Your task to perform on an android device: open app "YouTube Kids" (install if not already installed), go to login, and select forgot password Image 0: 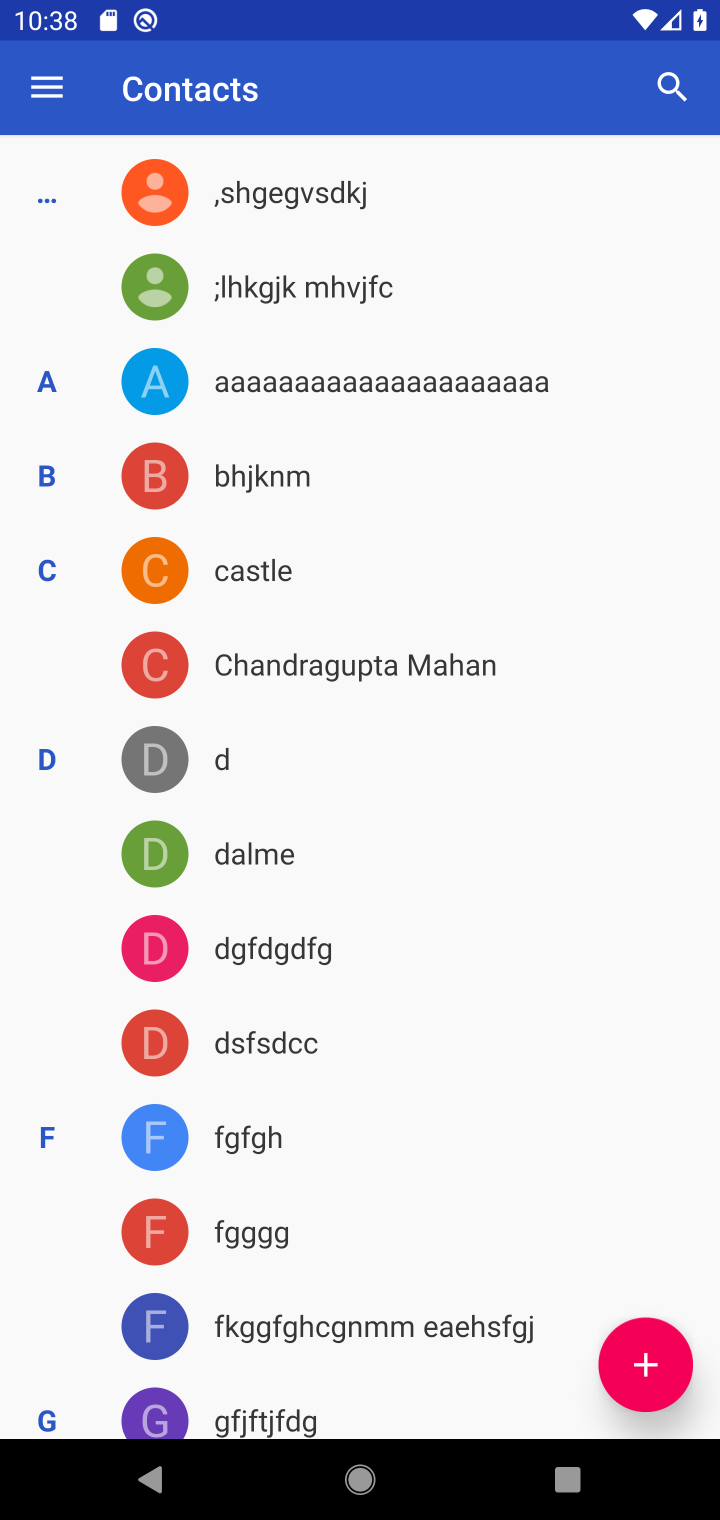
Step 0: drag from (194, 1291) to (195, 683)
Your task to perform on an android device: open app "YouTube Kids" (install if not already installed), go to login, and select forgot password Image 1: 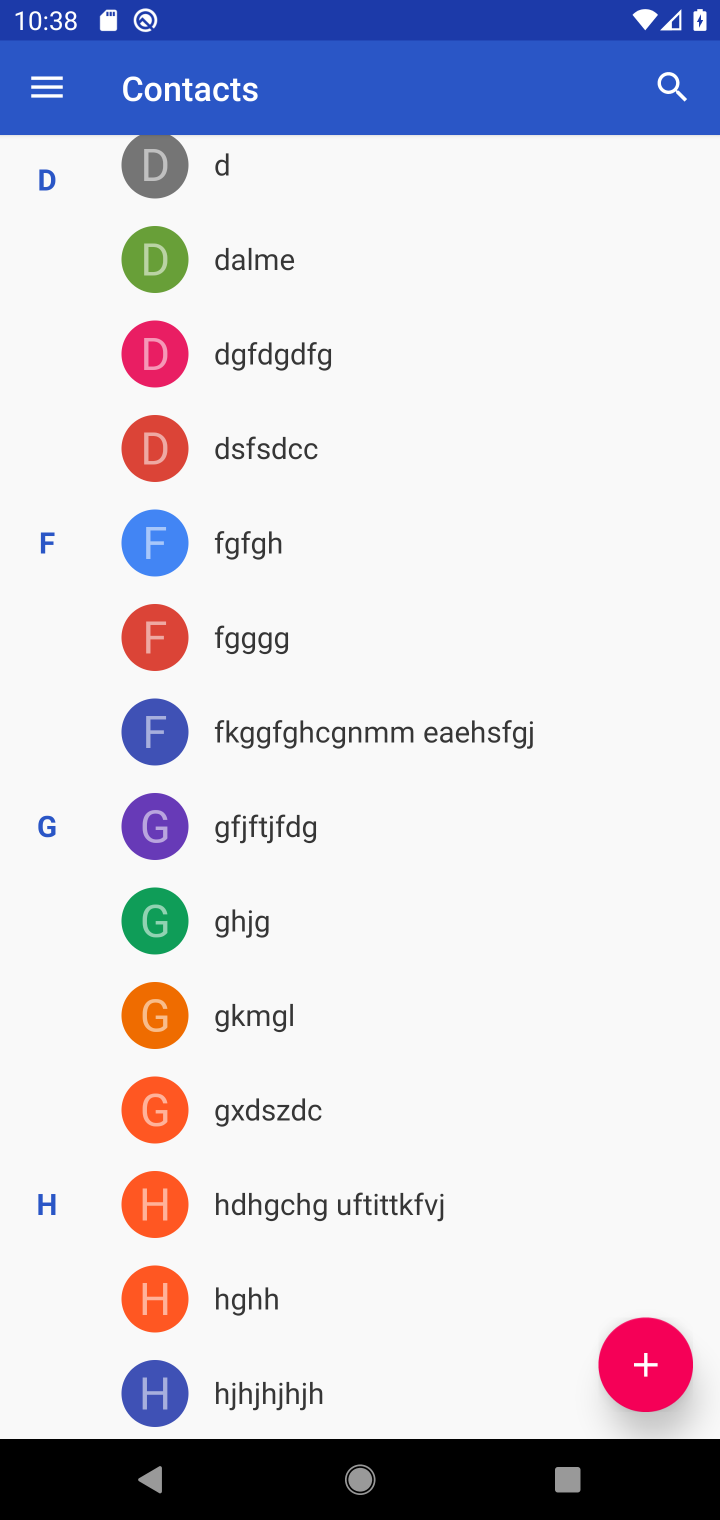
Step 1: press home button
Your task to perform on an android device: open app "YouTube Kids" (install if not already installed), go to login, and select forgot password Image 2: 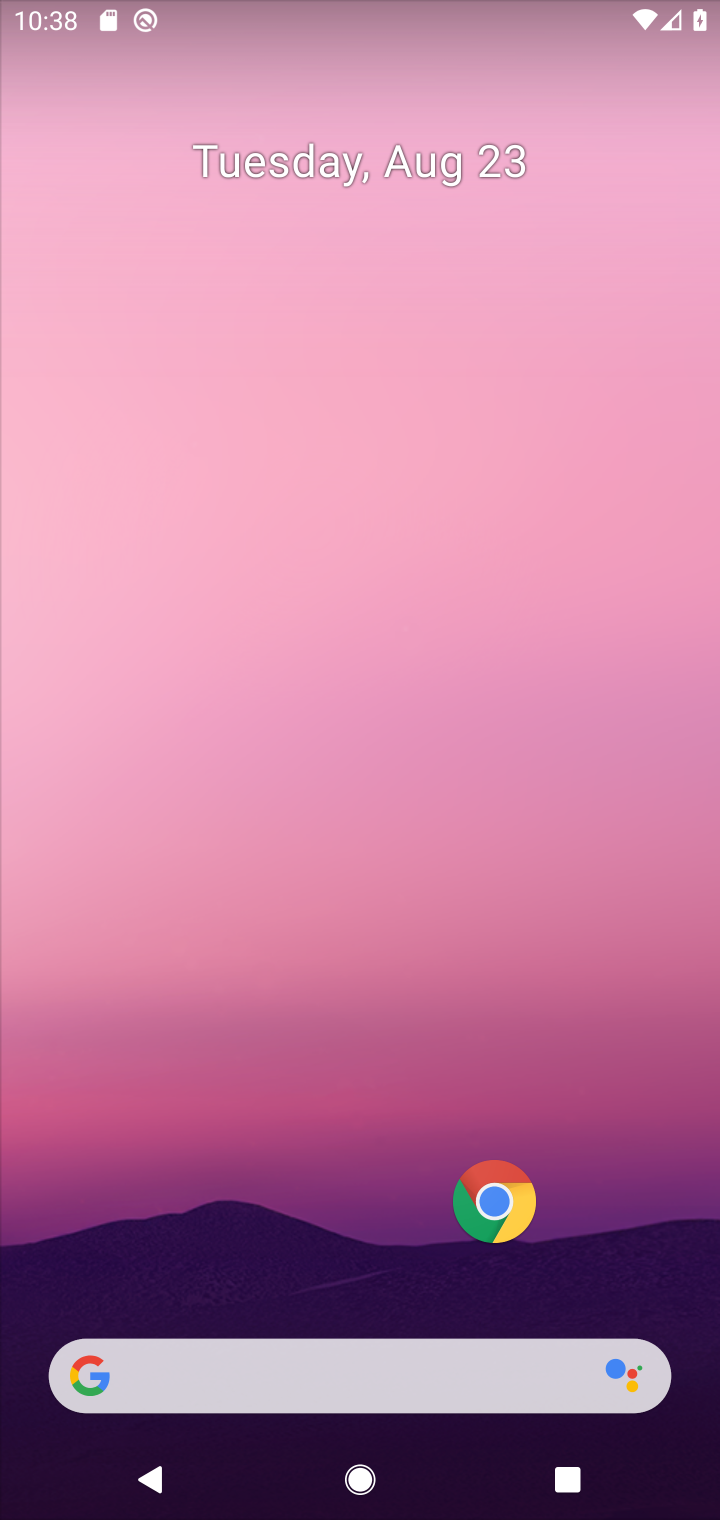
Step 2: drag from (297, 1138) to (282, 537)
Your task to perform on an android device: open app "YouTube Kids" (install if not already installed), go to login, and select forgot password Image 3: 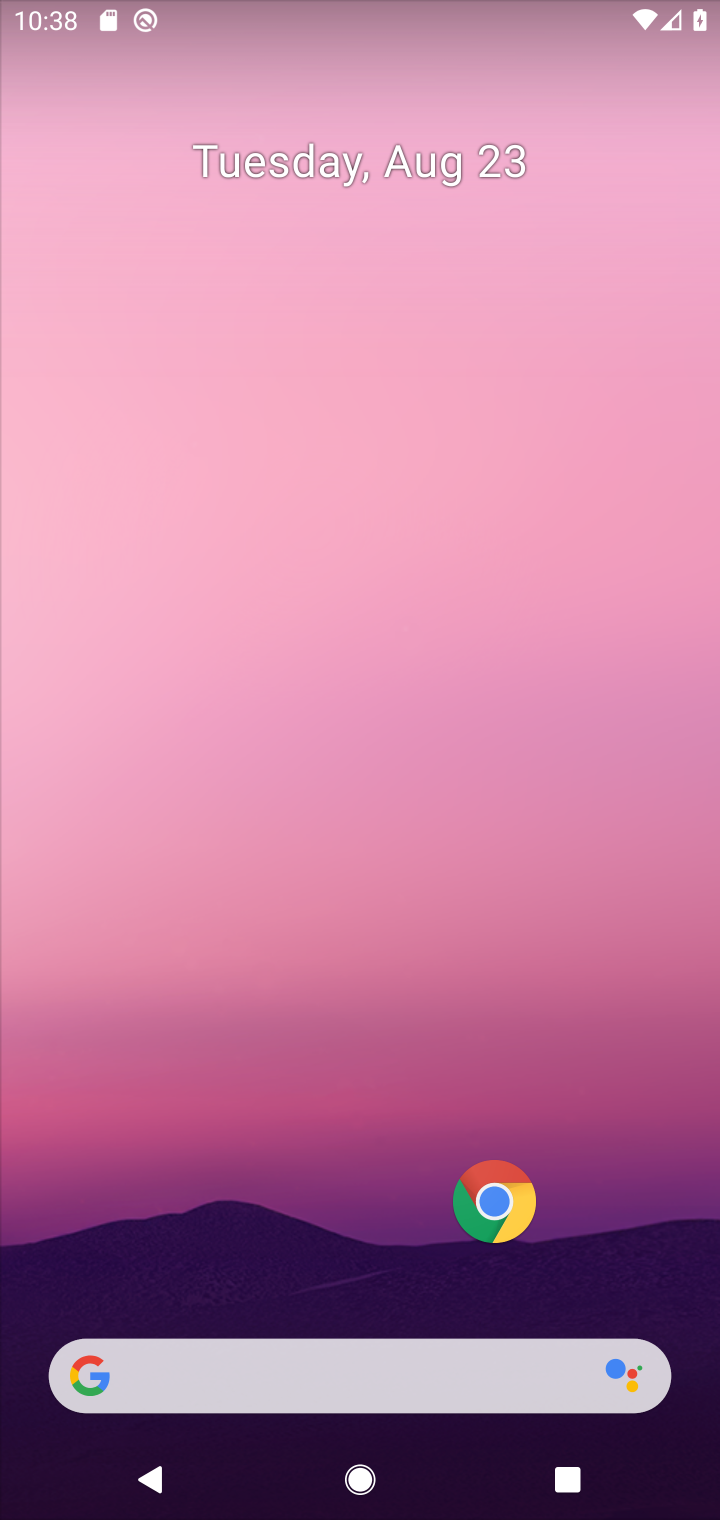
Step 3: drag from (320, 1261) to (386, 240)
Your task to perform on an android device: open app "YouTube Kids" (install if not already installed), go to login, and select forgot password Image 4: 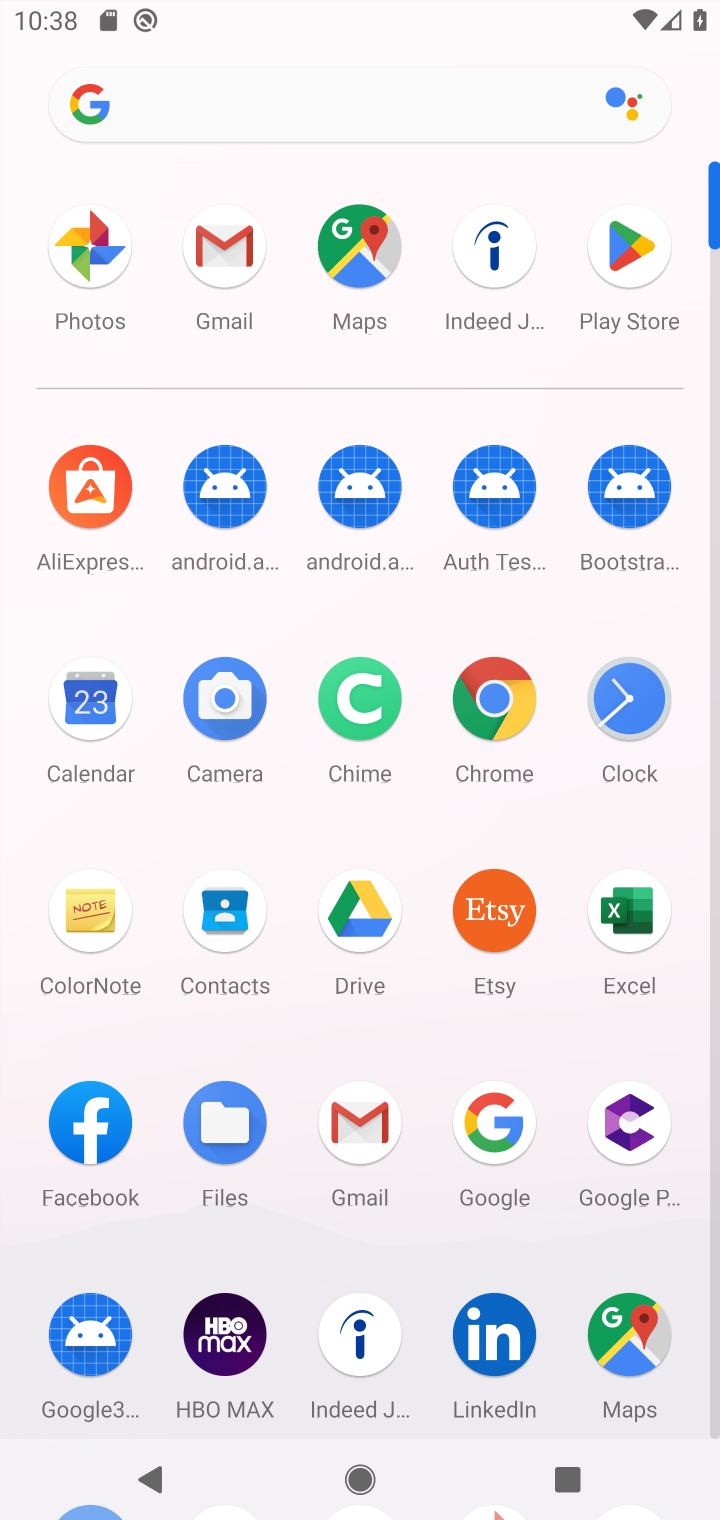
Step 4: click (637, 259)
Your task to perform on an android device: open app "YouTube Kids" (install if not already installed), go to login, and select forgot password Image 5: 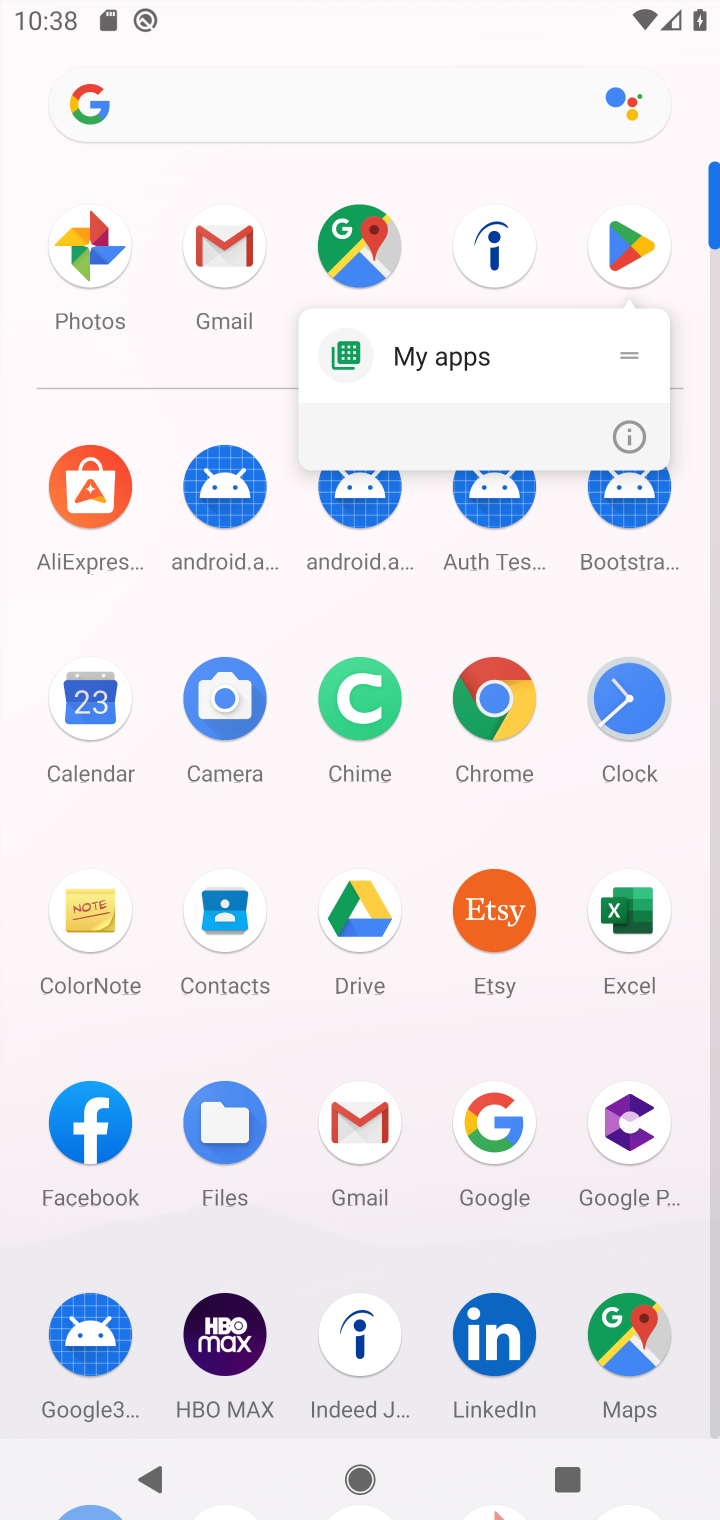
Step 5: click (621, 243)
Your task to perform on an android device: open app "YouTube Kids" (install if not already installed), go to login, and select forgot password Image 6: 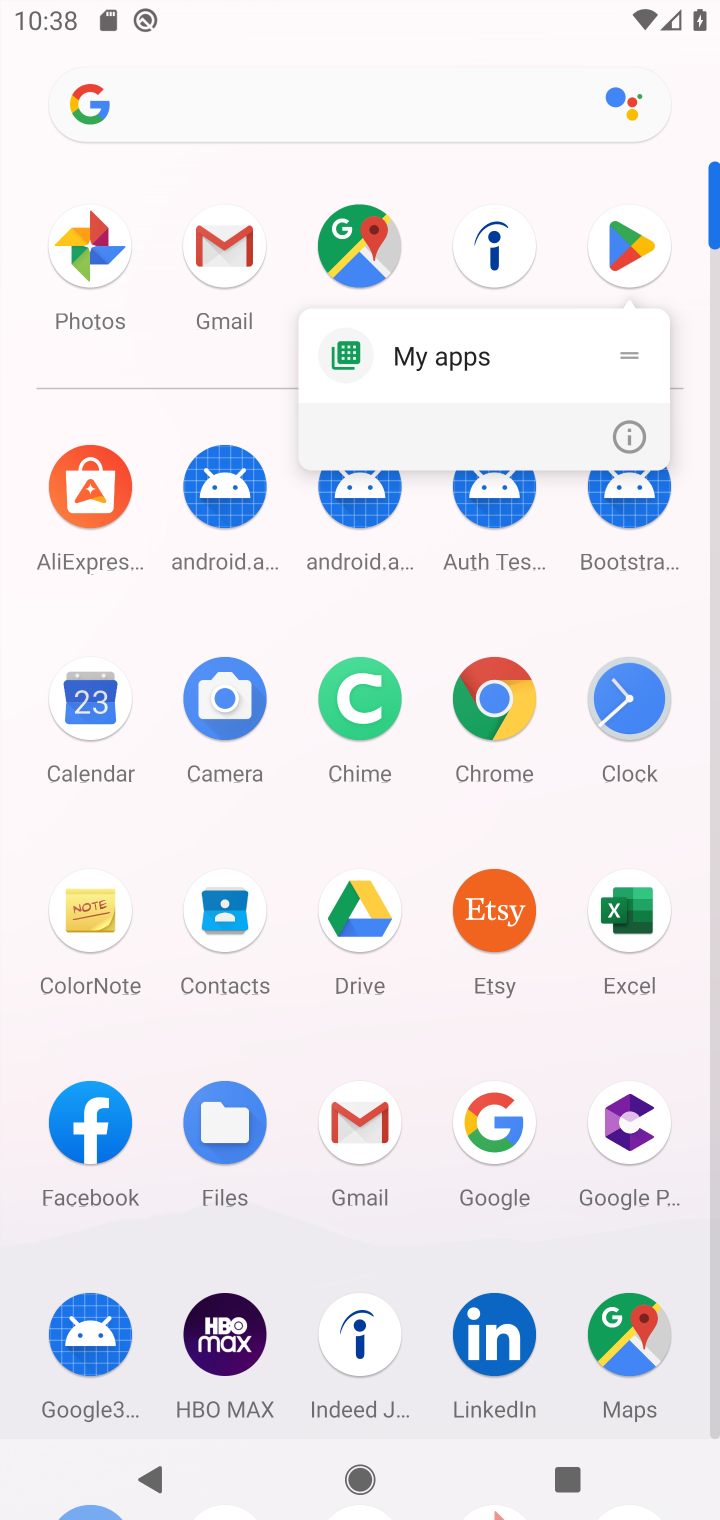
Step 6: click (621, 243)
Your task to perform on an android device: open app "YouTube Kids" (install if not already installed), go to login, and select forgot password Image 7: 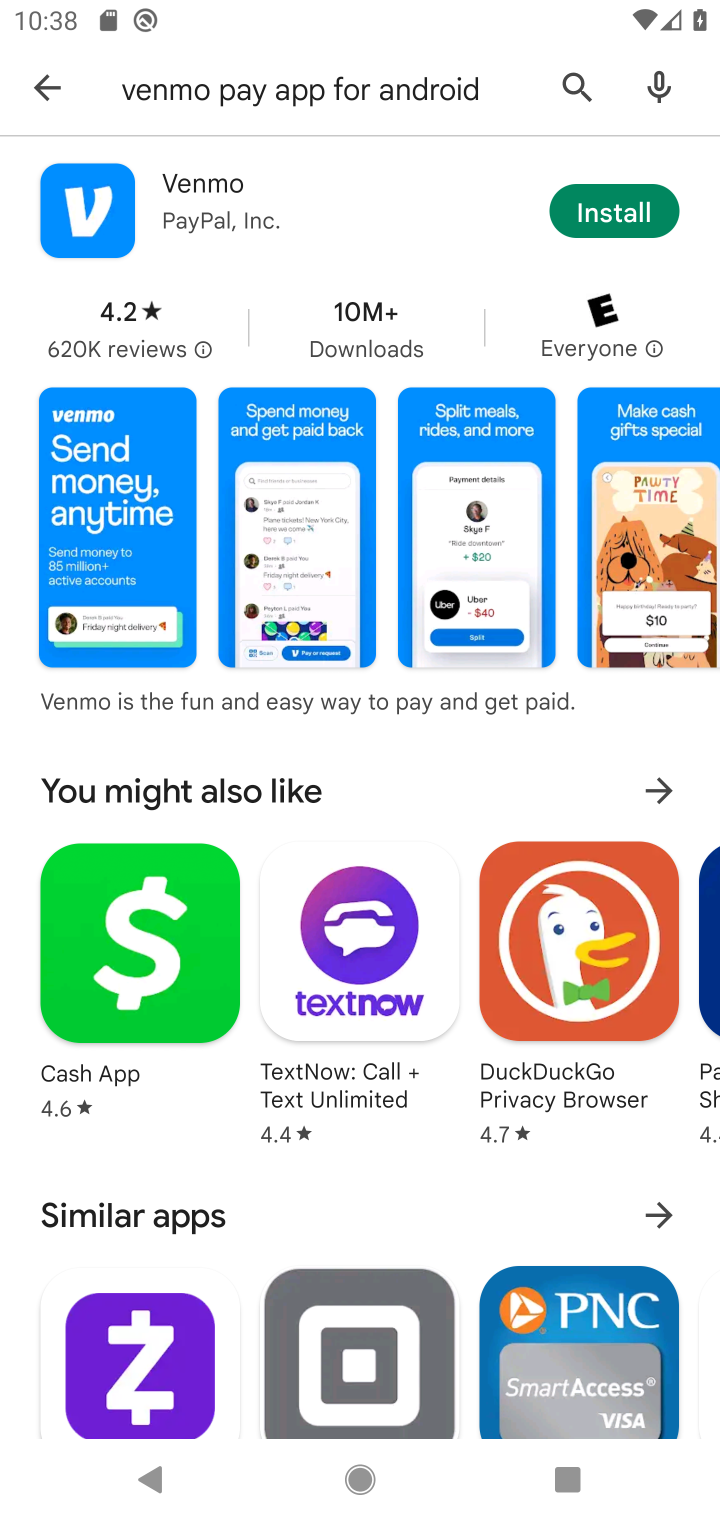
Step 7: click (100, 150)
Your task to perform on an android device: open app "YouTube Kids" (install if not already installed), go to login, and select forgot password Image 8: 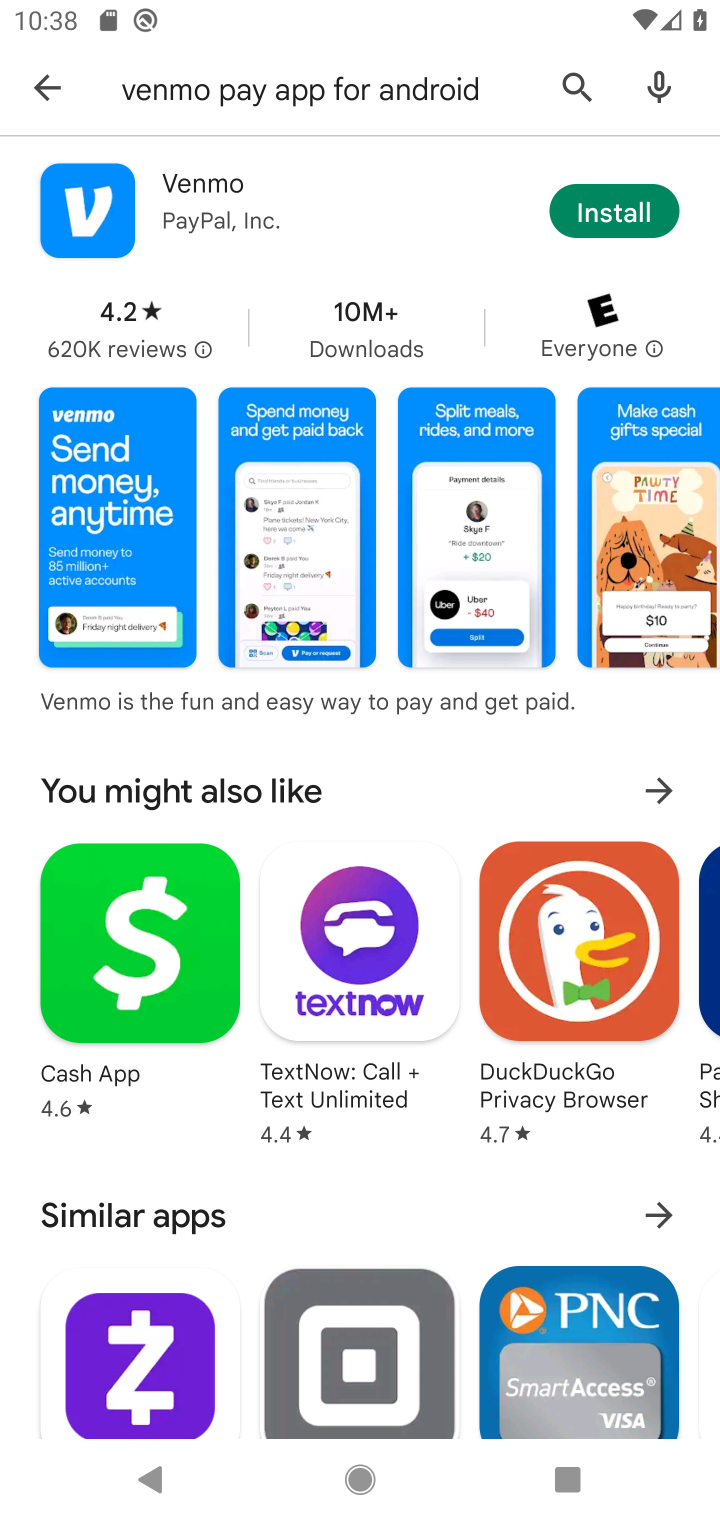
Step 8: click (63, 91)
Your task to perform on an android device: open app "YouTube Kids" (install if not already installed), go to login, and select forgot password Image 9: 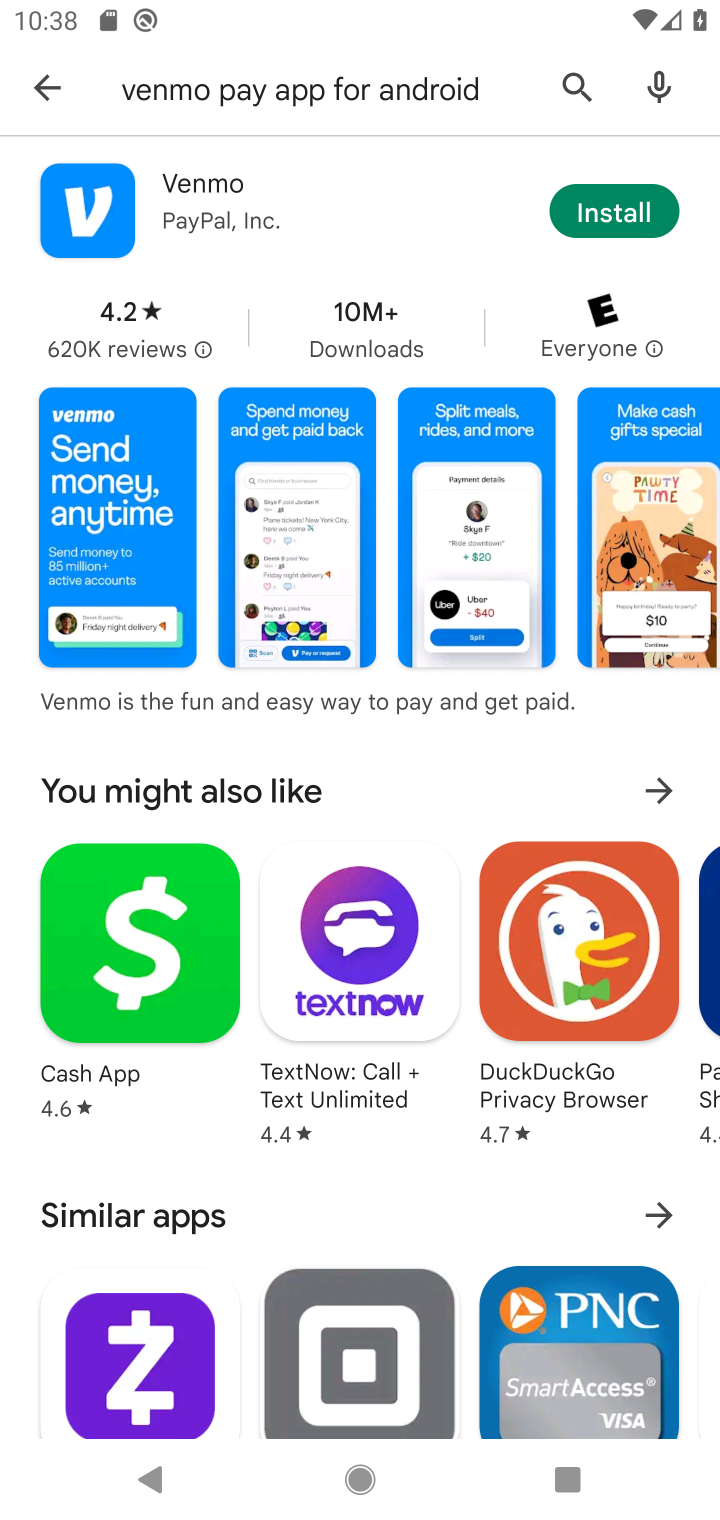
Step 9: click (580, 84)
Your task to perform on an android device: open app "YouTube Kids" (install if not already installed), go to login, and select forgot password Image 10: 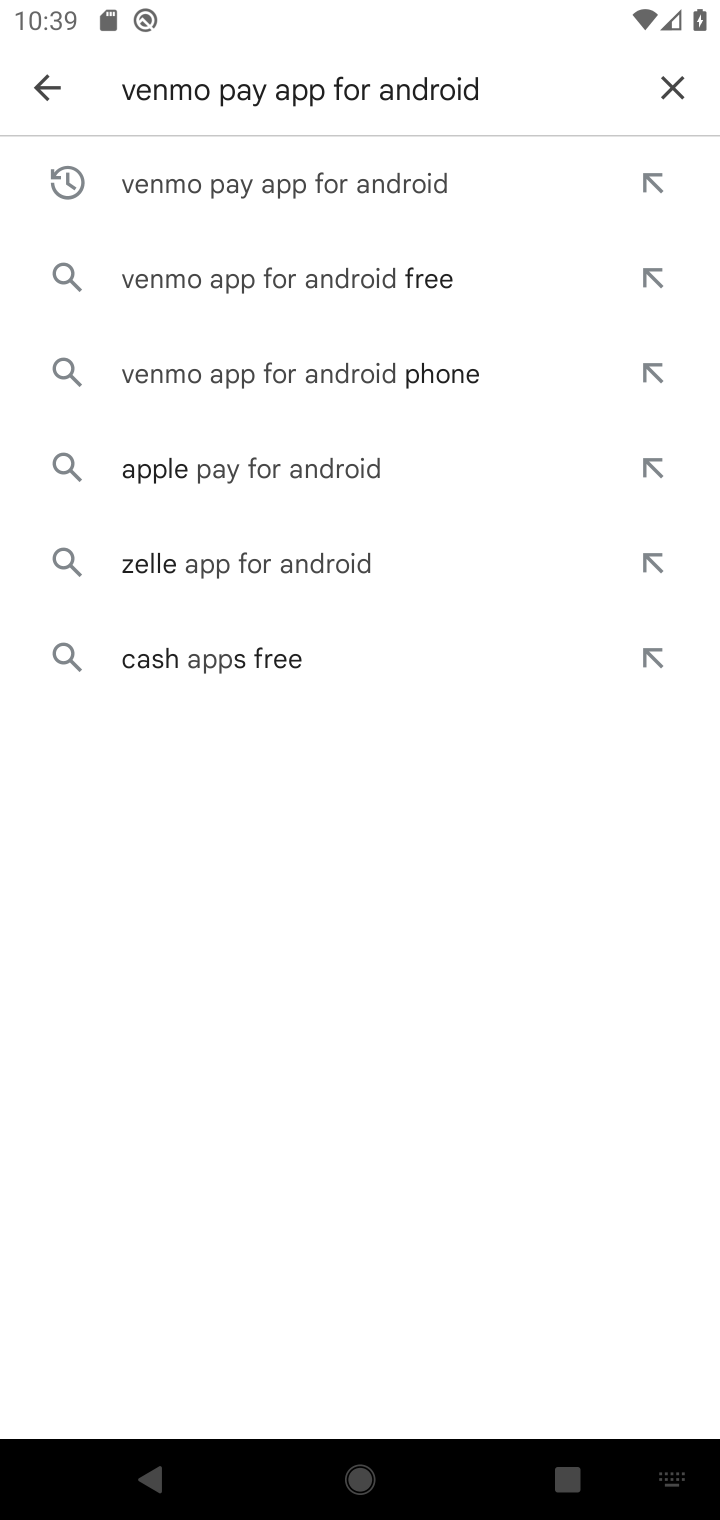
Step 10: click (629, 88)
Your task to perform on an android device: open app "YouTube Kids" (install if not already installed), go to login, and select forgot password Image 11: 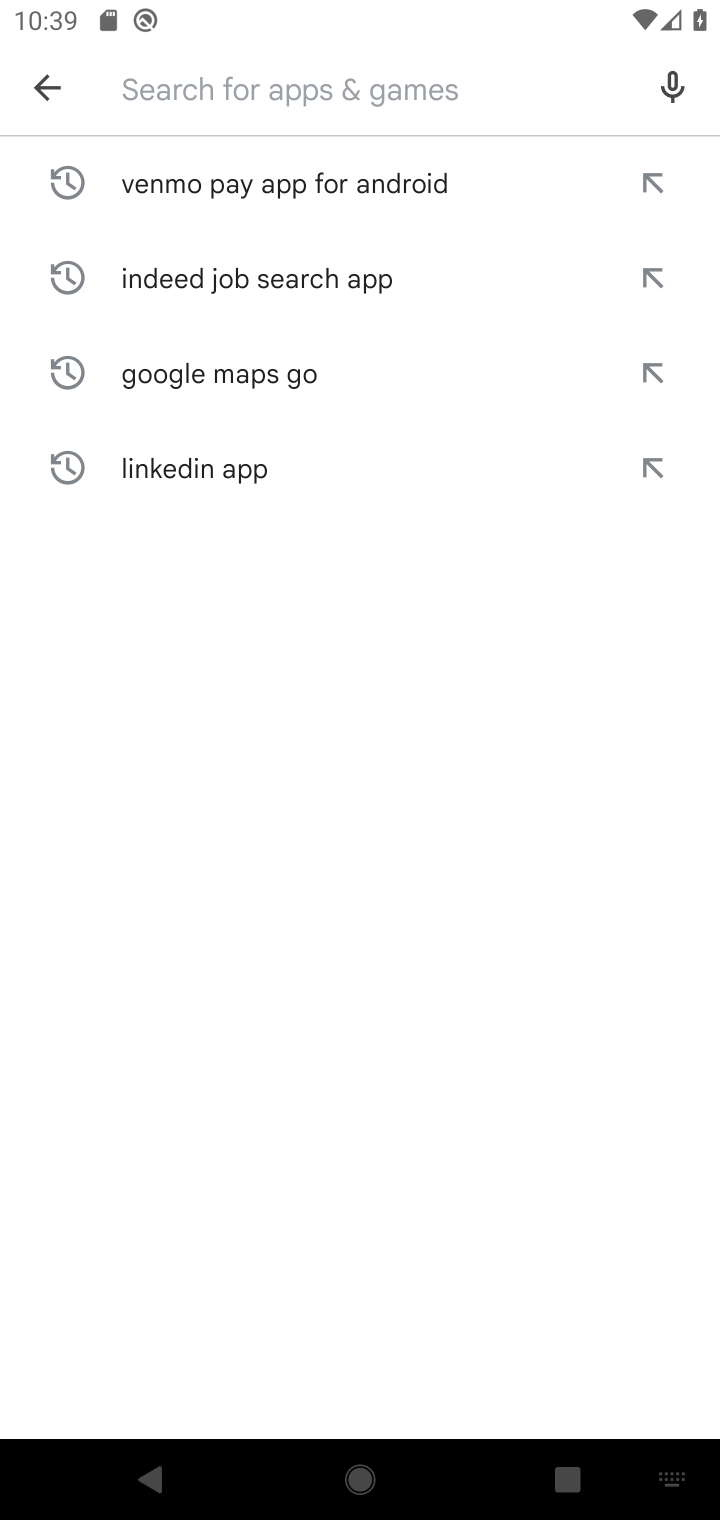
Step 11: click (319, 65)
Your task to perform on an android device: open app "YouTube Kids" (install if not already installed), go to login, and select forgot password Image 12: 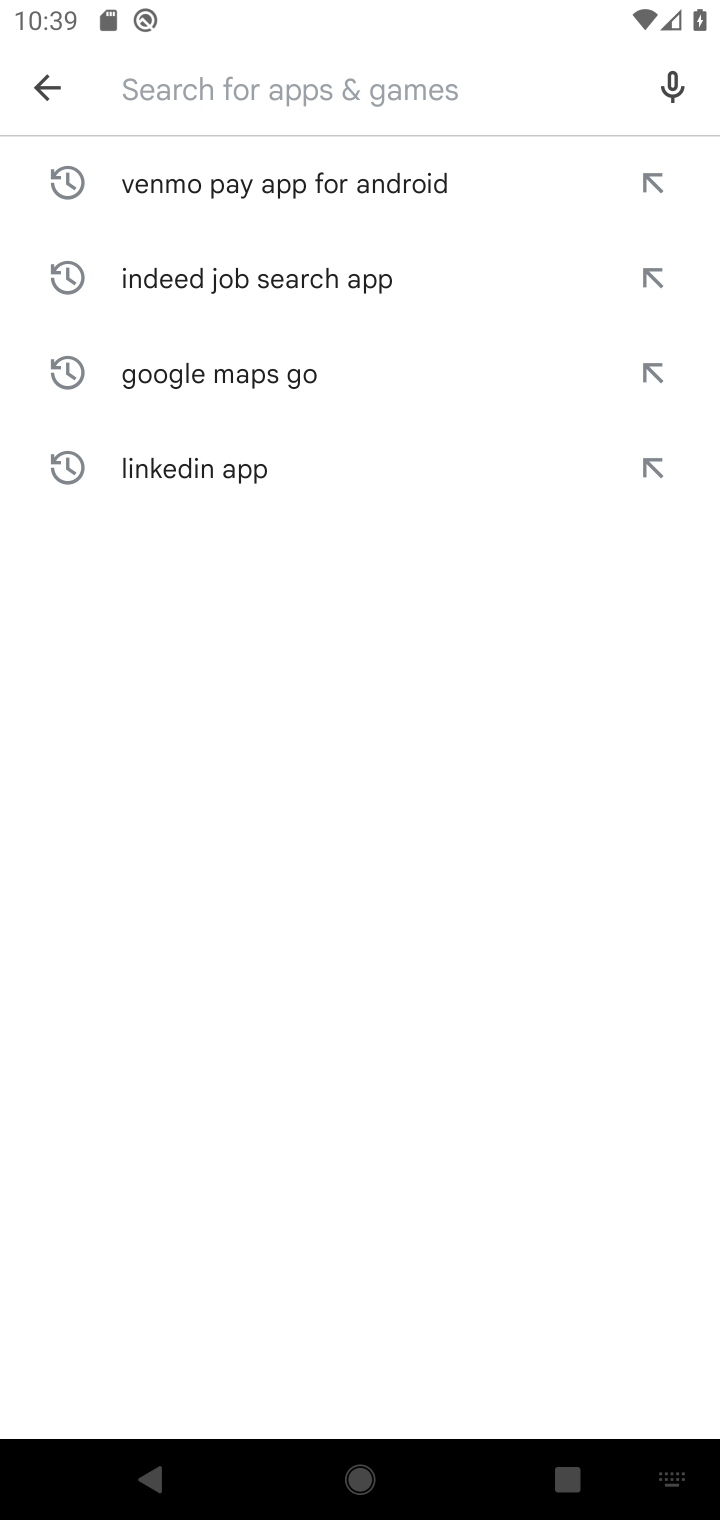
Step 12: type "YouTube Kid "
Your task to perform on an android device: open app "YouTube Kids" (install if not already installed), go to login, and select forgot password Image 13: 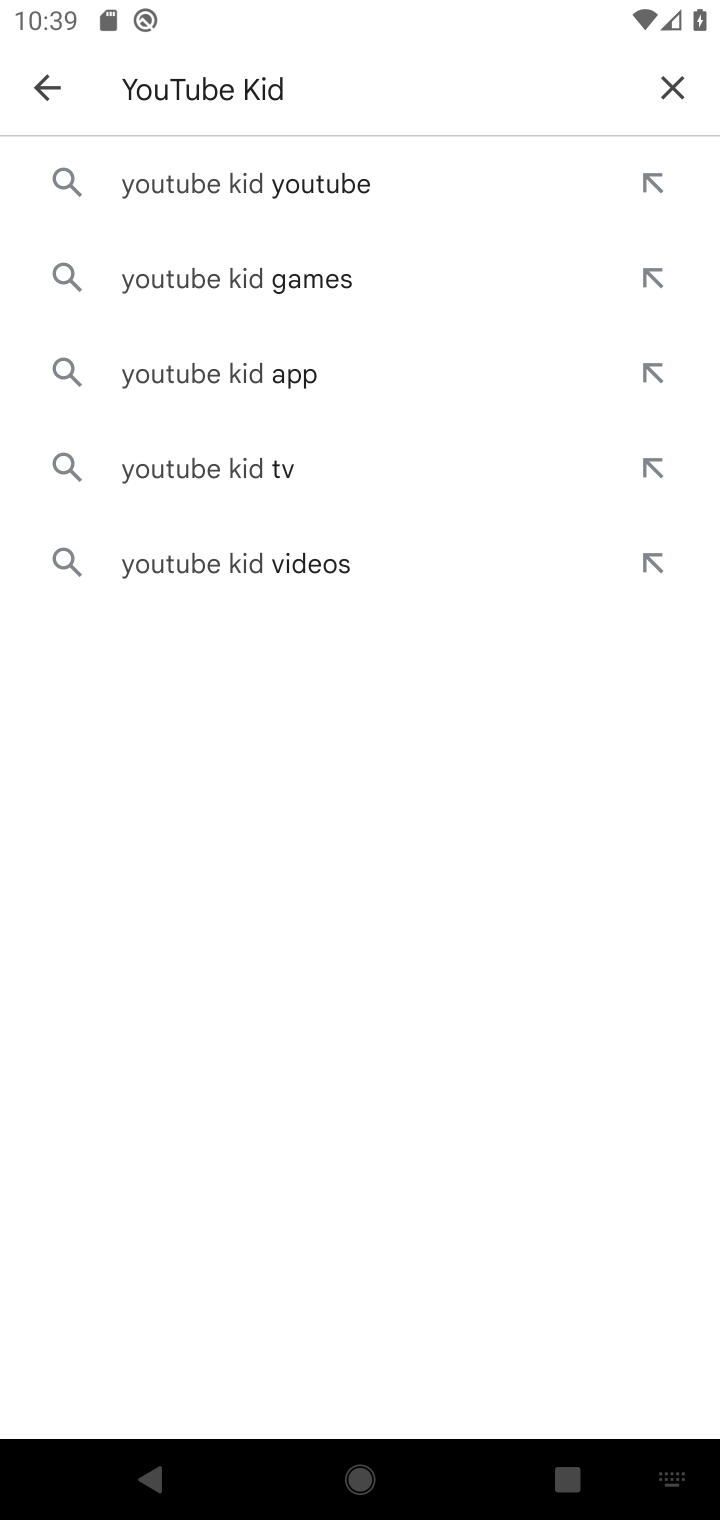
Step 13: click (334, 151)
Your task to perform on an android device: open app "YouTube Kids" (install if not already installed), go to login, and select forgot password Image 14: 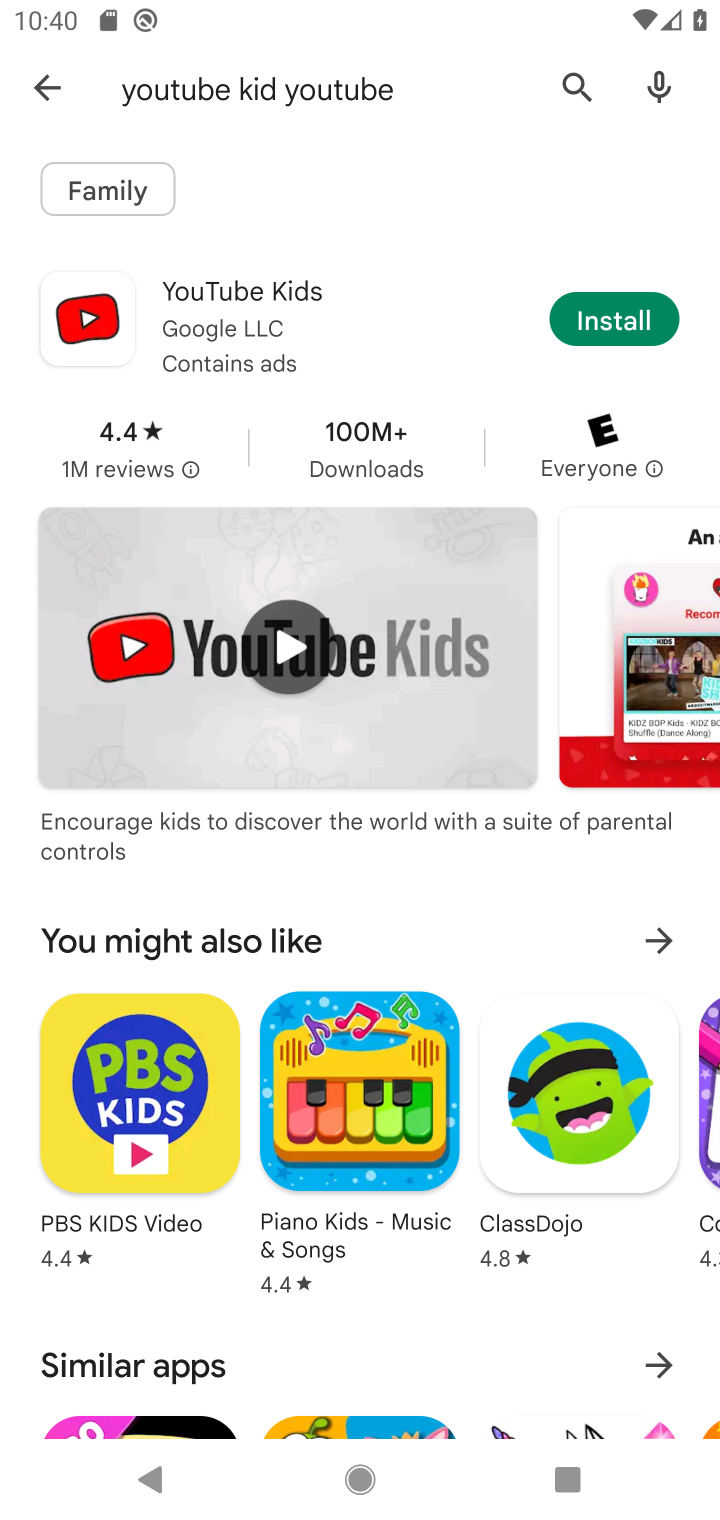
Step 14: click (603, 306)
Your task to perform on an android device: open app "YouTube Kids" (install if not already installed), go to login, and select forgot password Image 15: 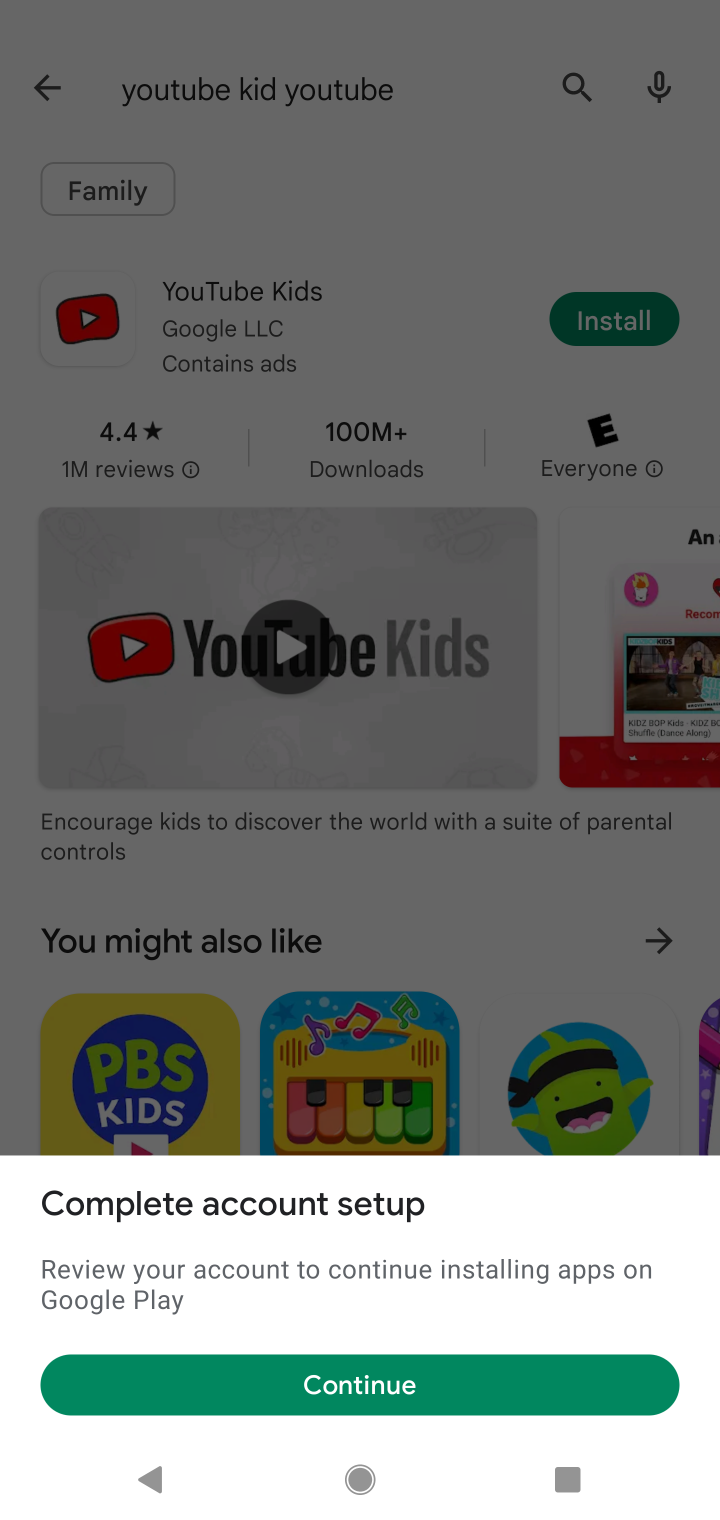
Step 15: task complete